Your task to perform on an android device: toggle improve location accuracy Image 0: 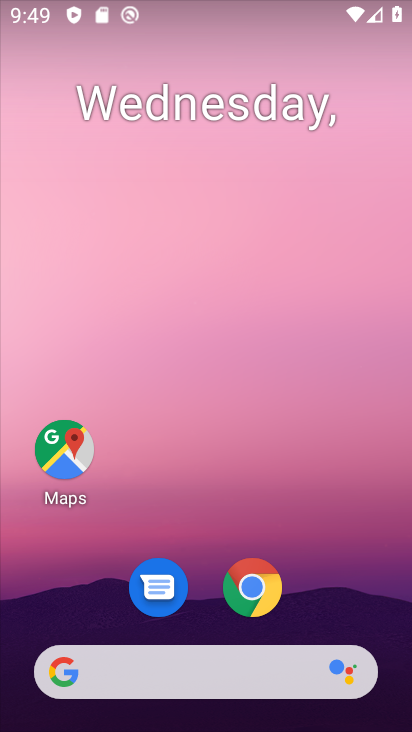
Step 0: drag from (322, 454) to (217, 102)
Your task to perform on an android device: toggle improve location accuracy Image 1: 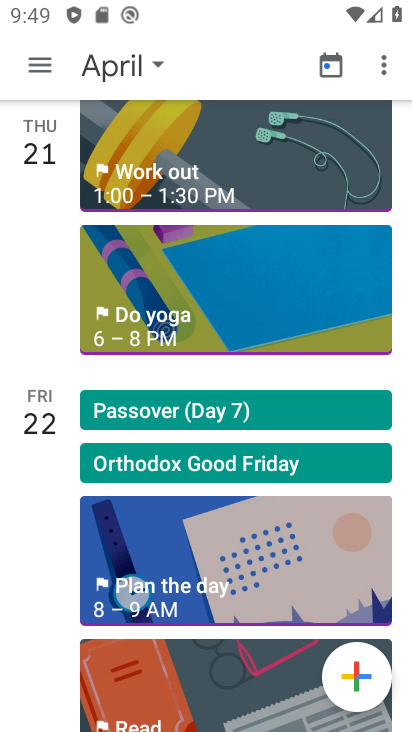
Step 1: press home button
Your task to perform on an android device: toggle improve location accuracy Image 2: 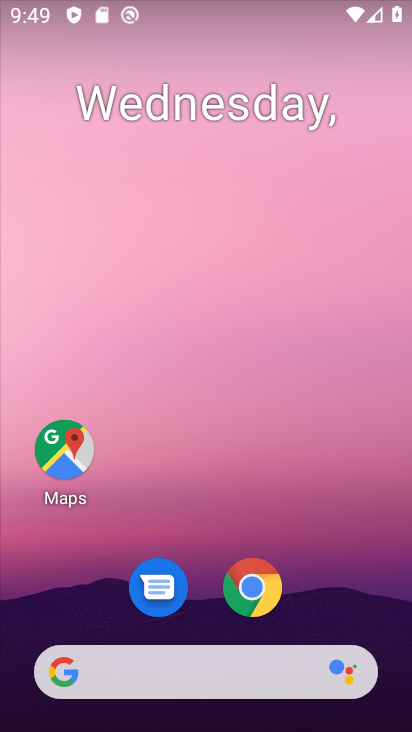
Step 2: drag from (273, 538) to (125, 156)
Your task to perform on an android device: toggle improve location accuracy Image 3: 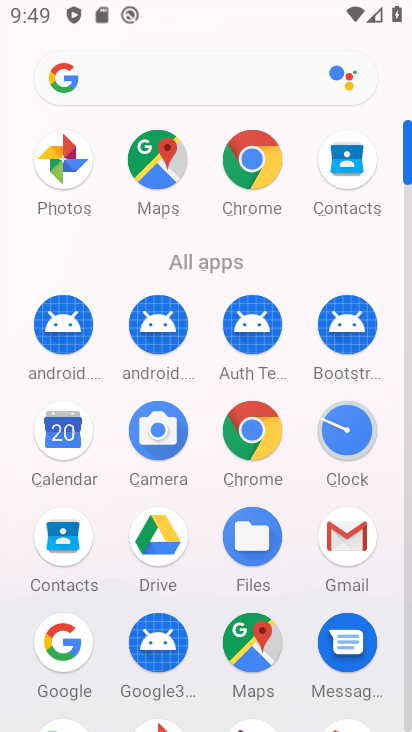
Step 3: drag from (204, 589) to (198, 133)
Your task to perform on an android device: toggle improve location accuracy Image 4: 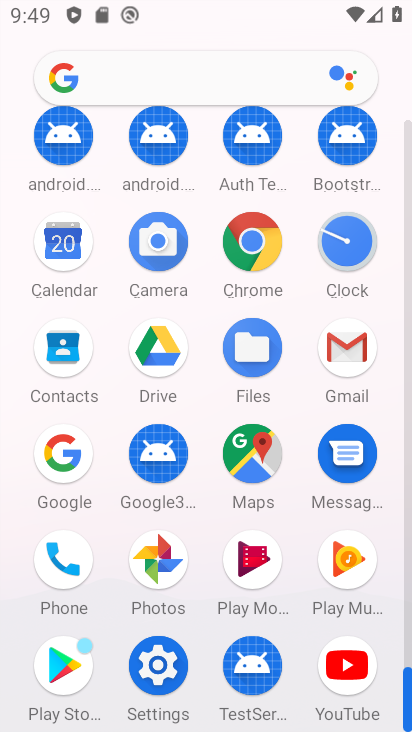
Step 4: click (158, 669)
Your task to perform on an android device: toggle improve location accuracy Image 5: 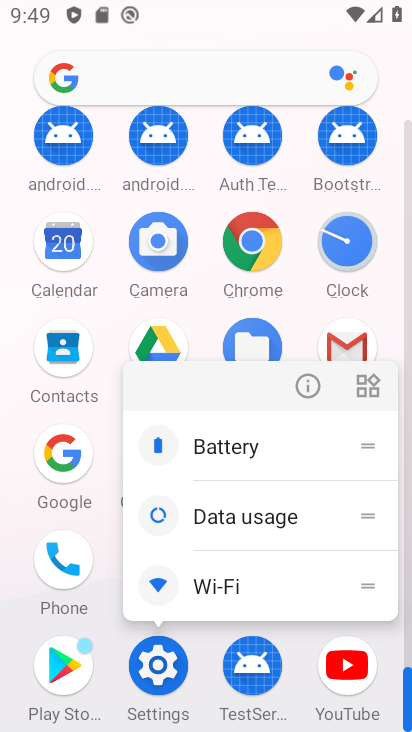
Step 5: click (158, 669)
Your task to perform on an android device: toggle improve location accuracy Image 6: 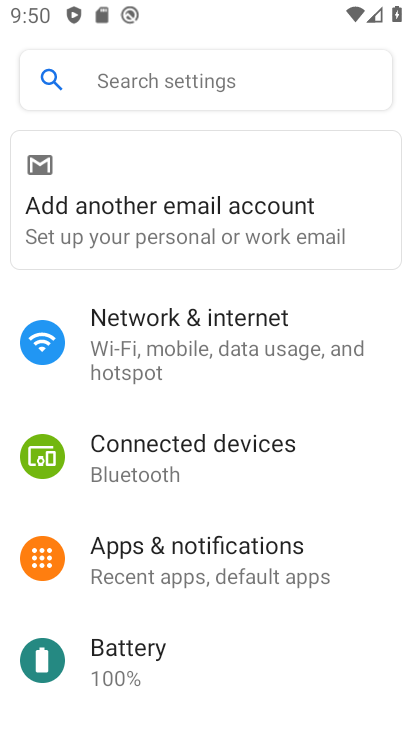
Step 6: drag from (364, 670) to (355, 308)
Your task to perform on an android device: toggle improve location accuracy Image 7: 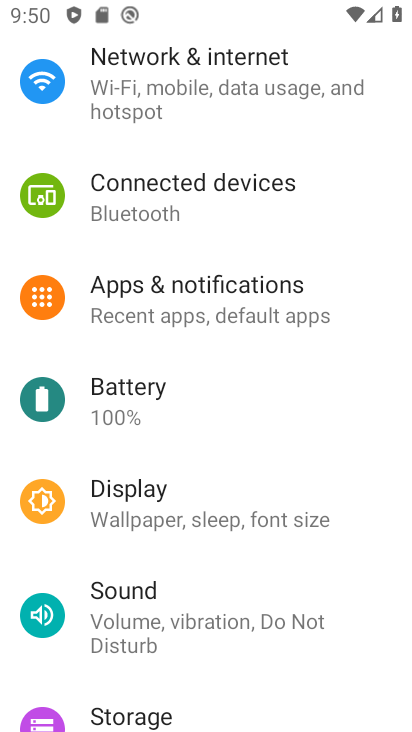
Step 7: drag from (320, 691) to (280, 242)
Your task to perform on an android device: toggle improve location accuracy Image 8: 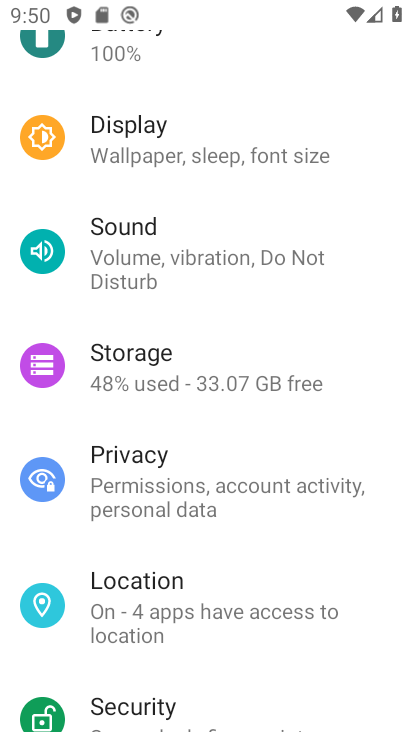
Step 8: click (115, 600)
Your task to perform on an android device: toggle improve location accuracy Image 9: 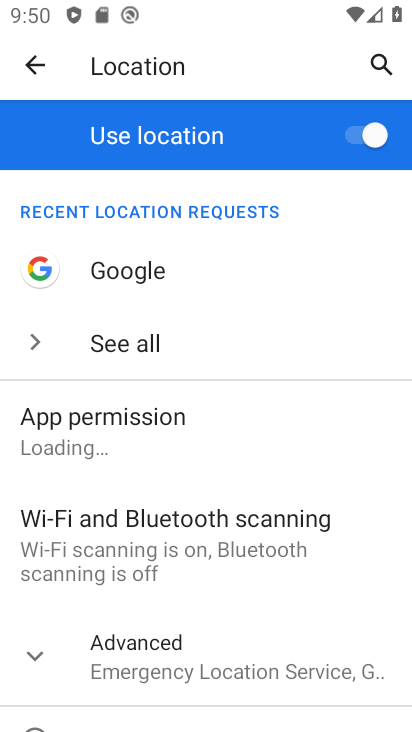
Step 9: drag from (263, 607) to (260, 357)
Your task to perform on an android device: toggle improve location accuracy Image 10: 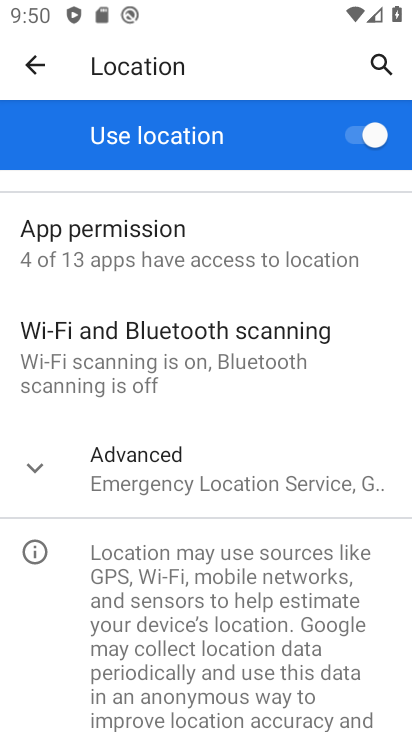
Step 10: click (155, 485)
Your task to perform on an android device: toggle improve location accuracy Image 11: 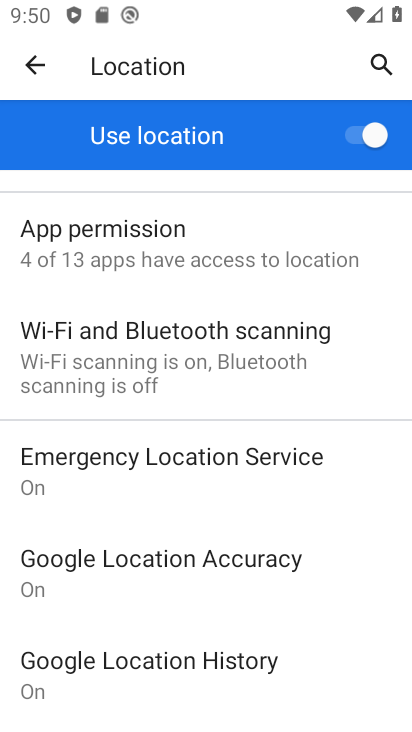
Step 11: click (171, 569)
Your task to perform on an android device: toggle improve location accuracy Image 12: 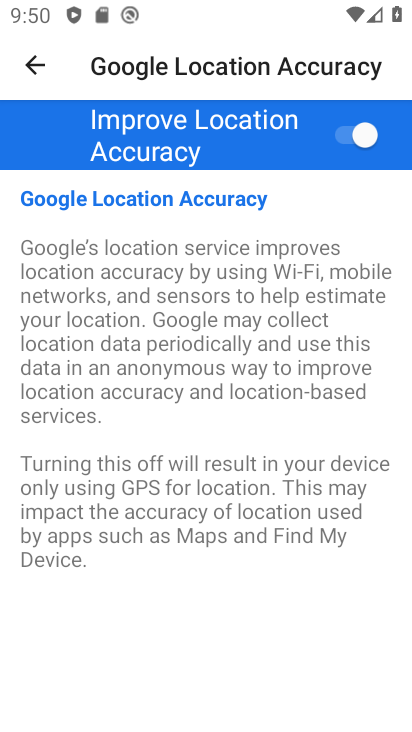
Step 12: click (355, 143)
Your task to perform on an android device: toggle improve location accuracy Image 13: 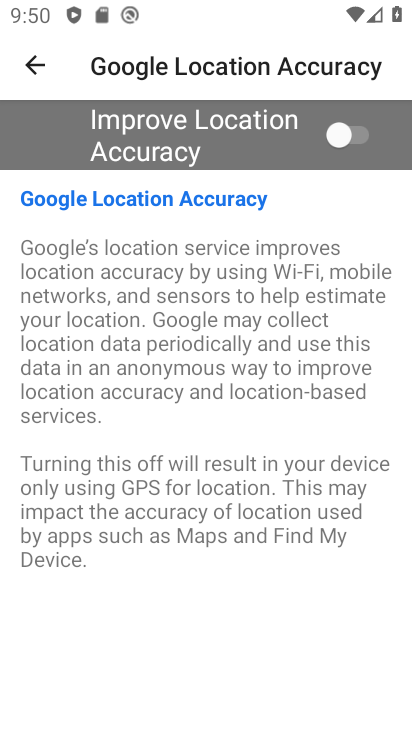
Step 13: task complete